Your task to perform on an android device: Open my contact list Image 0: 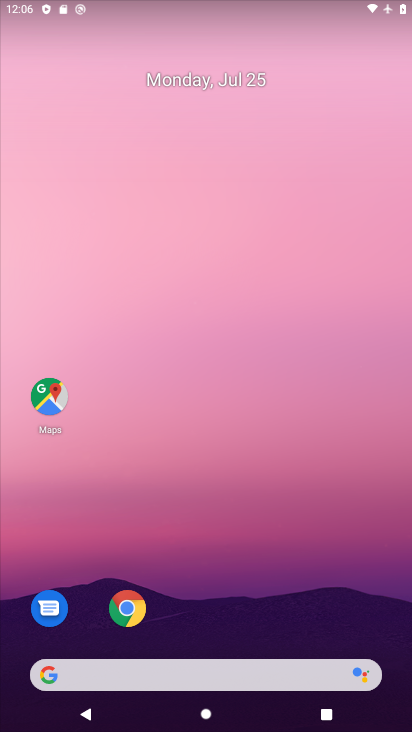
Step 0: drag from (163, 653) to (139, 288)
Your task to perform on an android device: Open my contact list Image 1: 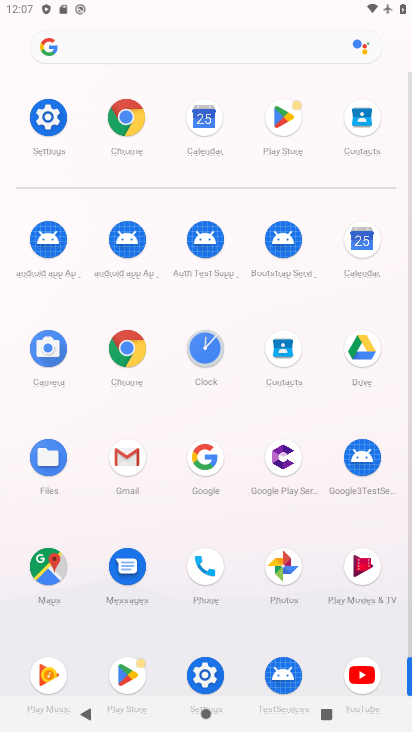
Step 1: click (281, 376)
Your task to perform on an android device: Open my contact list Image 2: 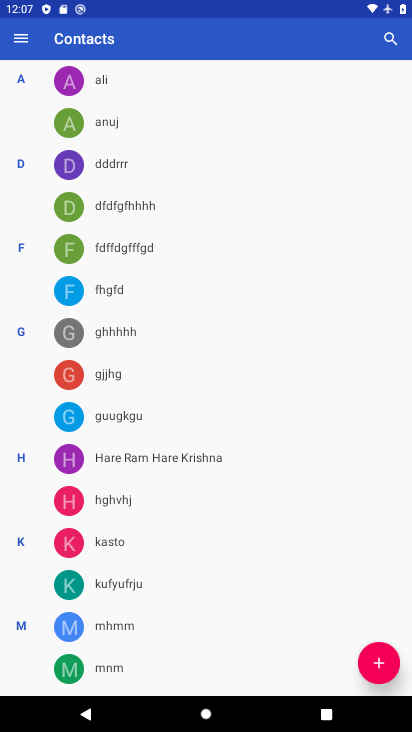
Step 2: task complete